Your task to perform on an android device: turn pop-ups on in chrome Image 0: 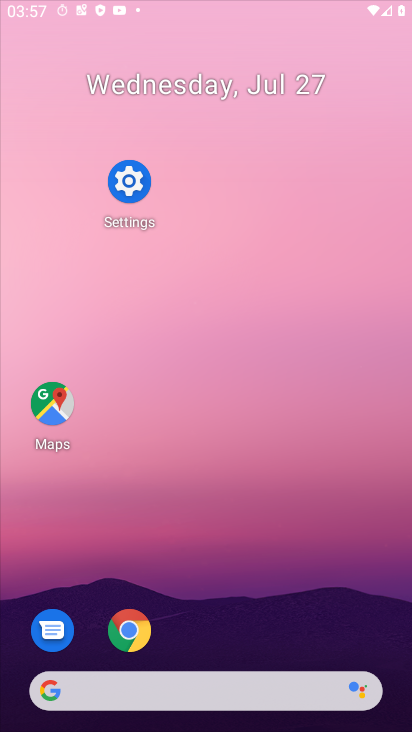
Step 0: click (317, 116)
Your task to perform on an android device: turn pop-ups on in chrome Image 1: 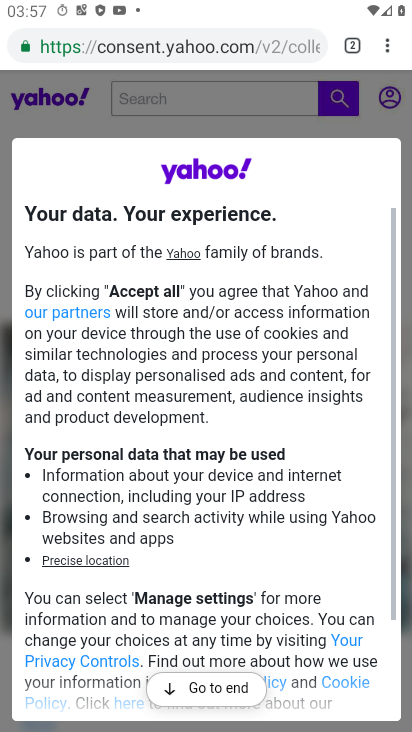
Step 1: press back button
Your task to perform on an android device: turn pop-ups on in chrome Image 2: 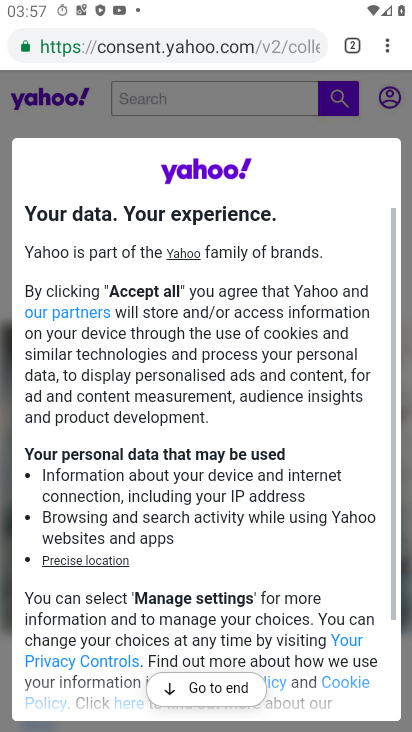
Step 2: press back button
Your task to perform on an android device: turn pop-ups on in chrome Image 3: 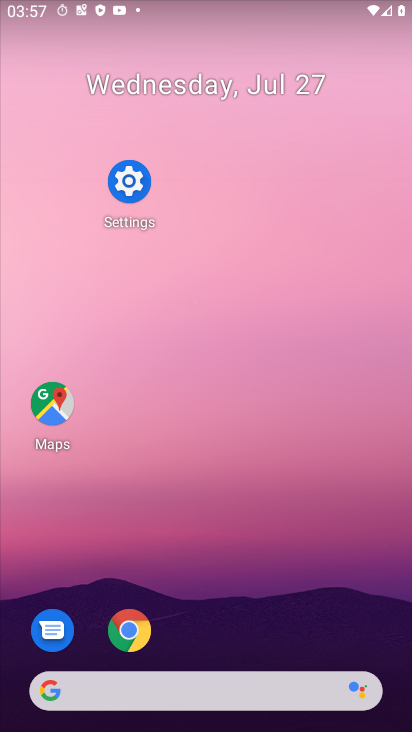
Step 3: click (211, 64)
Your task to perform on an android device: turn pop-ups on in chrome Image 4: 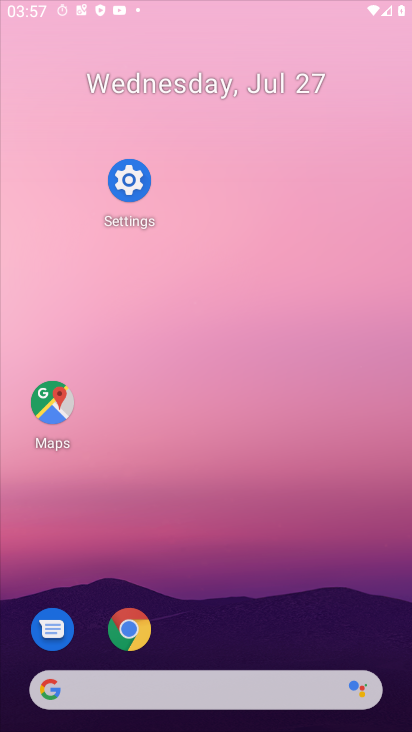
Step 4: drag from (293, 451) to (243, 90)
Your task to perform on an android device: turn pop-ups on in chrome Image 5: 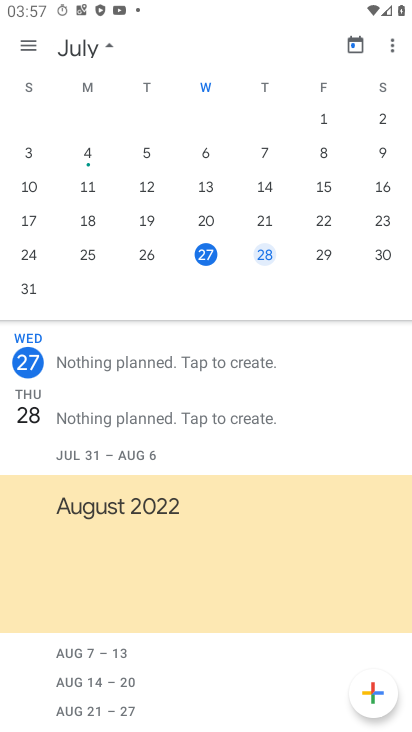
Step 5: drag from (298, 425) to (278, 132)
Your task to perform on an android device: turn pop-ups on in chrome Image 6: 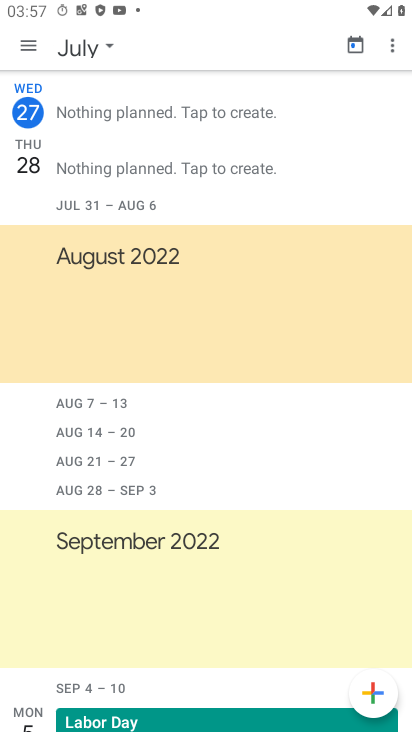
Step 6: press back button
Your task to perform on an android device: turn pop-ups on in chrome Image 7: 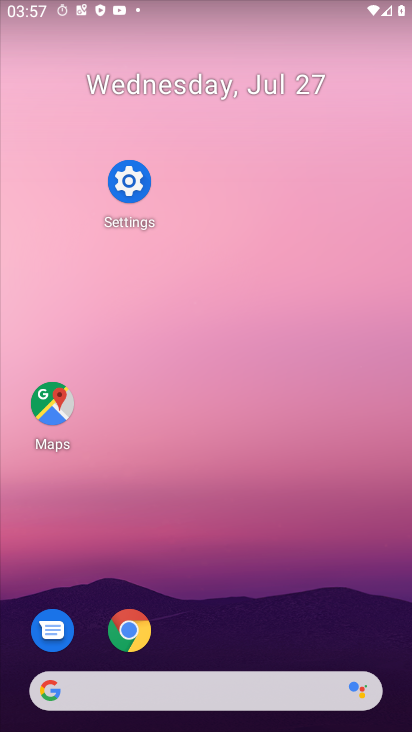
Step 7: drag from (158, 538) to (55, 89)
Your task to perform on an android device: turn pop-ups on in chrome Image 8: 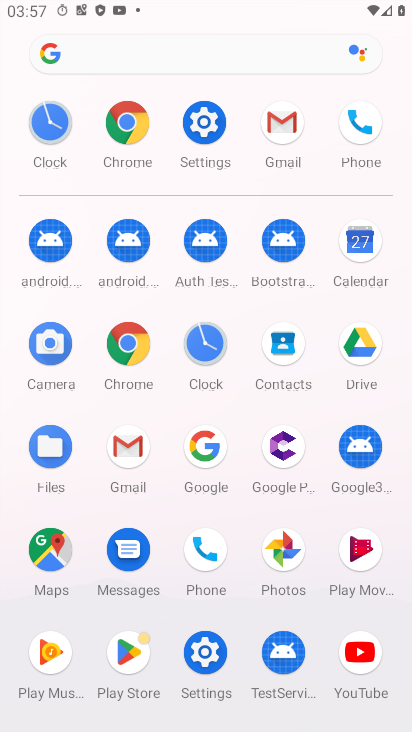
Step 8: click (133, 130)
Your task to perform on an android device: turn pop-ups on in chrome Image 9: 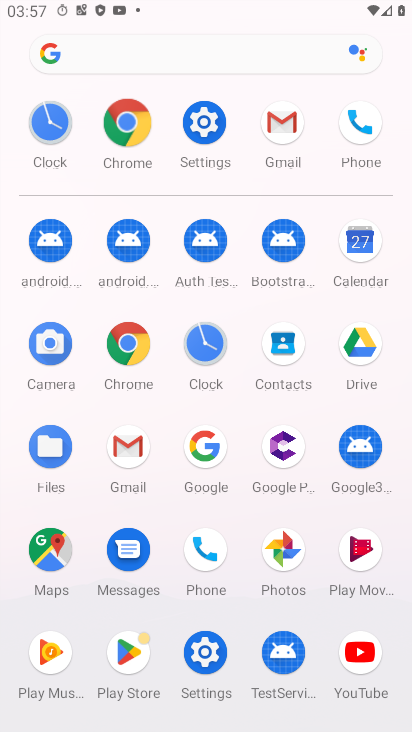
Step 9: click (134, 131)
Your task to perform on an android device: turn pop-ups on in chrome Image 10: 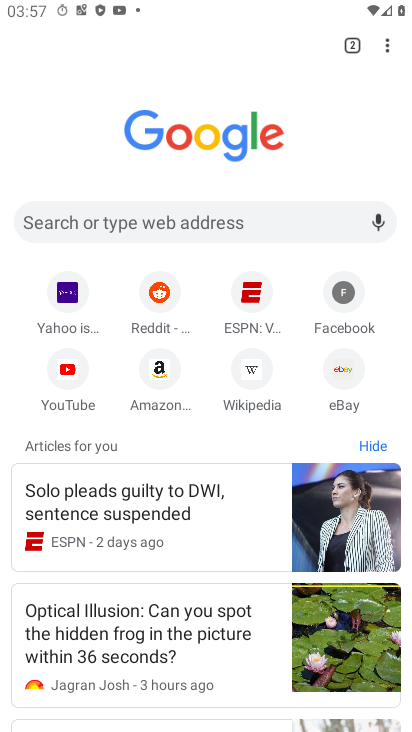
Step 10: drag from (381, 51) to (228, 373)
Your task to perform on an android device: turn pop-ups on in chrome Image 11: 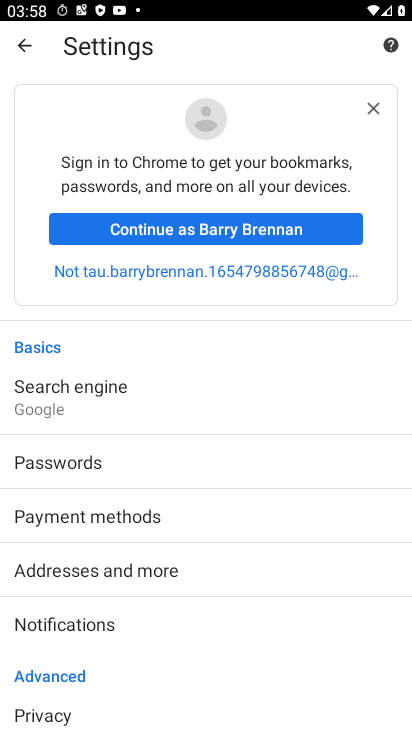
Step 11: drag from (147, 595) to (125, 307)
Your task to perform on an android device: turn pop-ups on in chrome Image 12: 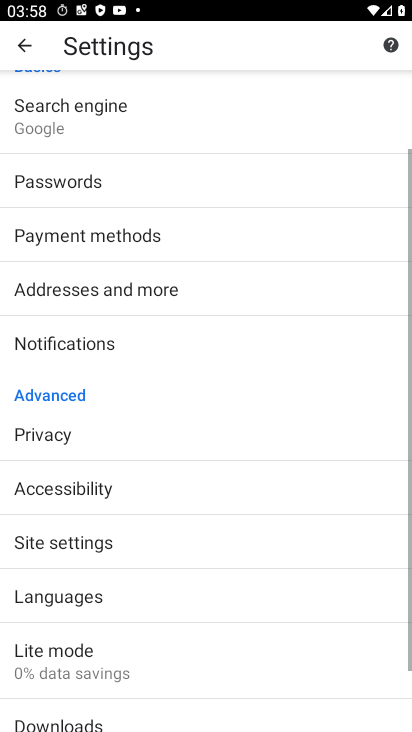
Step 12: drag from (156, 556) to (148, 349)
Your task to perform on an android device: turn pop-ups on in chrome Image 13: 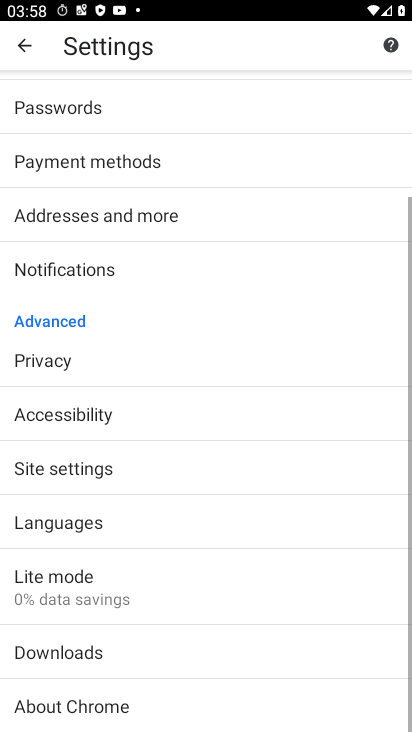
Step 13: drag from (193, 535) to (167, 351)
Your task to perform on an android device: turn pop-ups on in chrome Image 14: 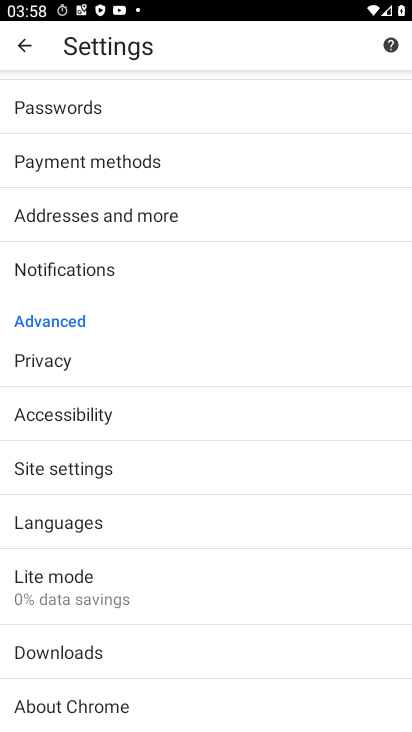
Step 14: drag from (86, 598) to (80, 277)
Your task to perform on an android device: turn pop-ups on in chrome Image 15: 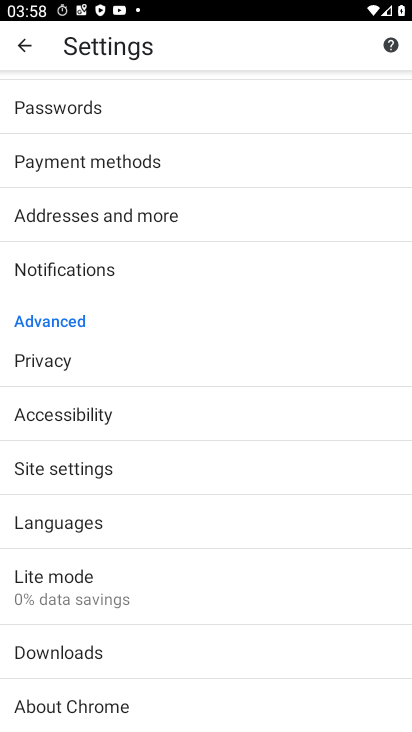
Step 15: click (47, 474)
Your task to perform on an android device: turn pop-ups on in chrome Image 16: 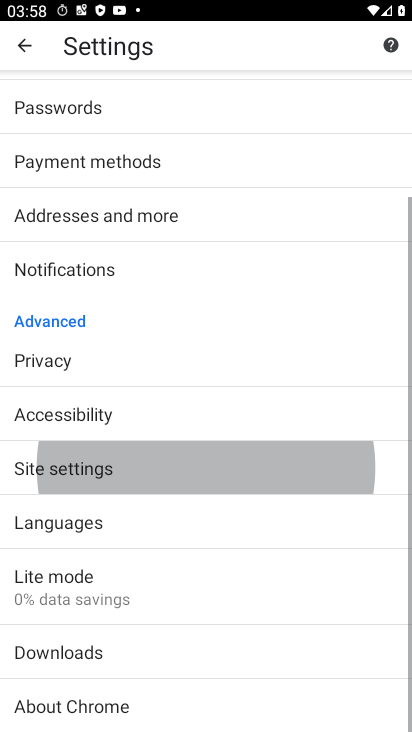
Step 16: click (48, 472)
Your task to perform on an android device: turn pop-ups on in chrome Image 17: 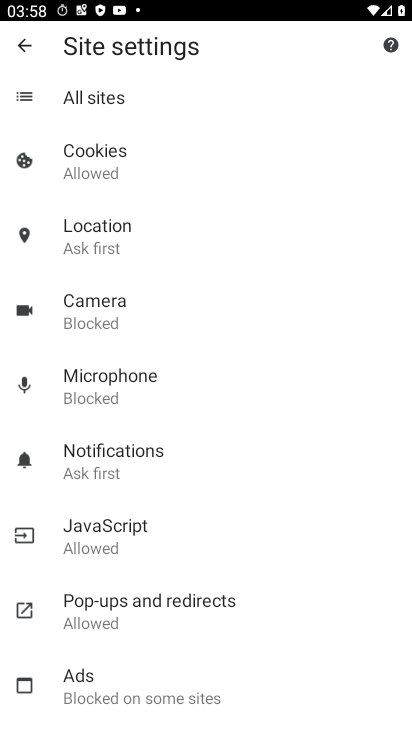
Step 17: click (98, 605)
Your task to perform on an android device: turn pop-ups on in chrome Image 18: 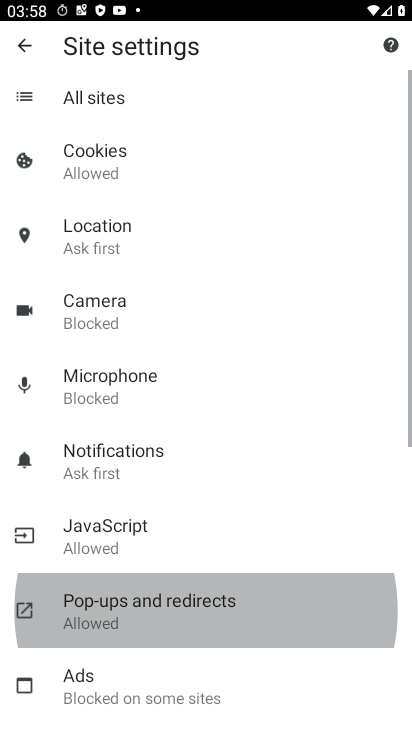
Step 18: click (106, 602)
Your task to perform on an android device: turn pop-ups on in chrome Image 19: 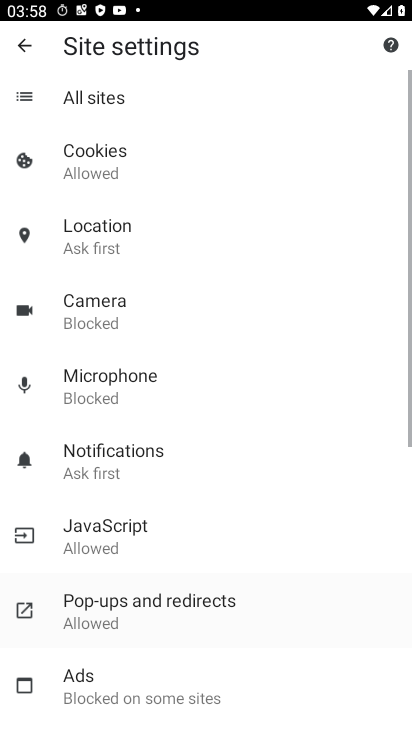
Step 19: click (108, 607)
Your task to perform on an android device: turn pop-ups on in chrome Image 20: 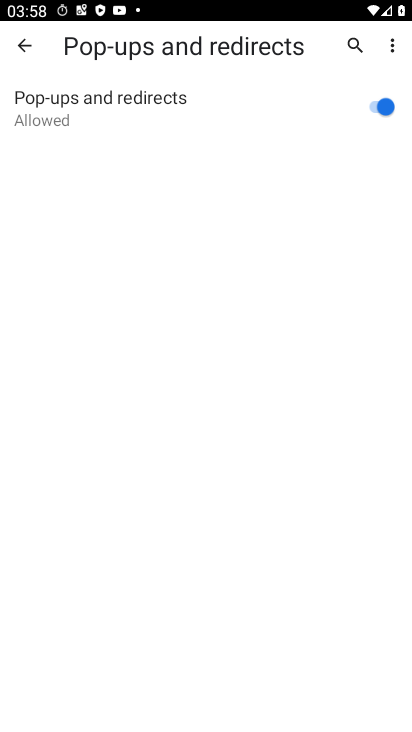
Step 20: task complete